Your task to perform on an android device: Go to Android settings Image 0: 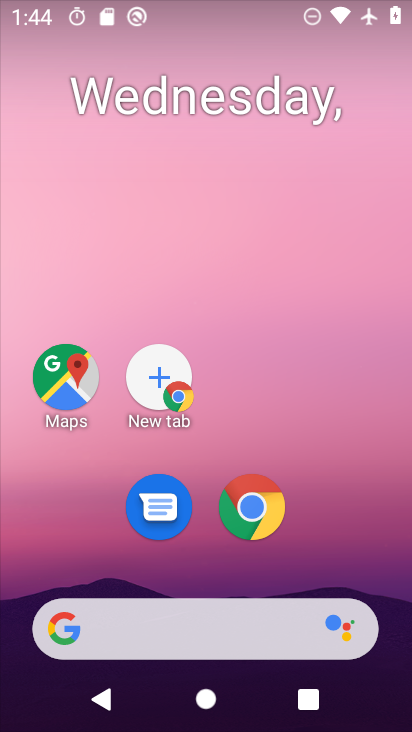
Step 0: drag from (354, 494) to (285, 9)
Your task to perform on an android device: Go to Android settings Image 1: 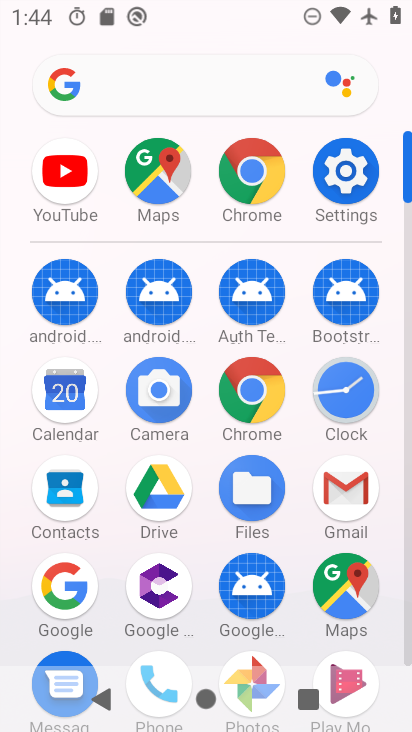
Step 1: click (341, 172)
Your task to perform on an android device: Go to Android settings Image 2: 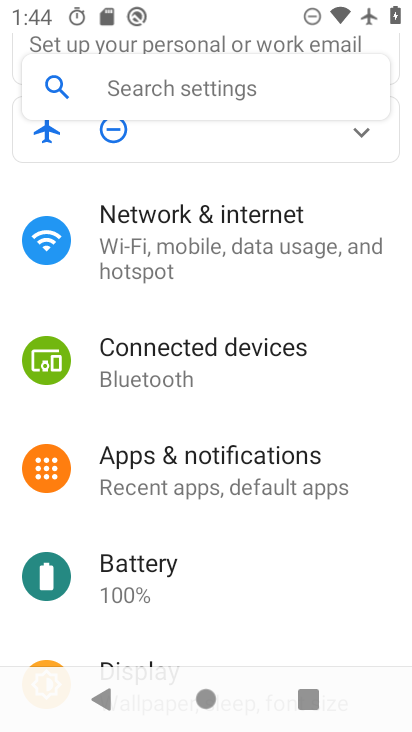
Step 2: drag from (232, 454) to (274, 129)
Your task to perform on an android device: Go to Android settings Image 3: 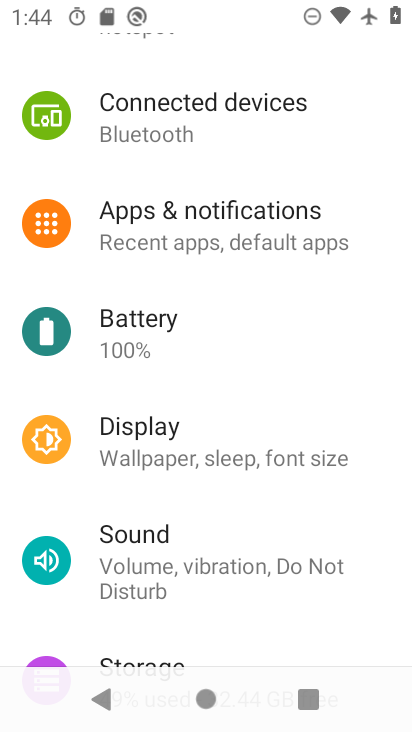
Step 3: drag from (259, 565) to (279, 144)
Your task to perform on an android device: Go to Android settings Image 4: 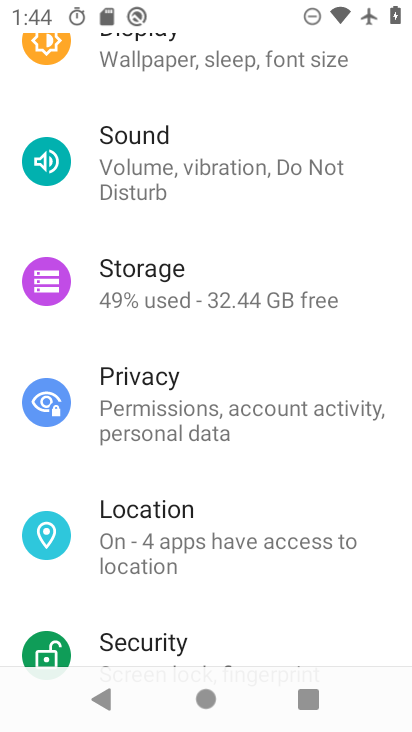
Step 4: drag from (268, 462) to (267, 138)
Your task to perform on an android device: Go to Android settings Image 5: 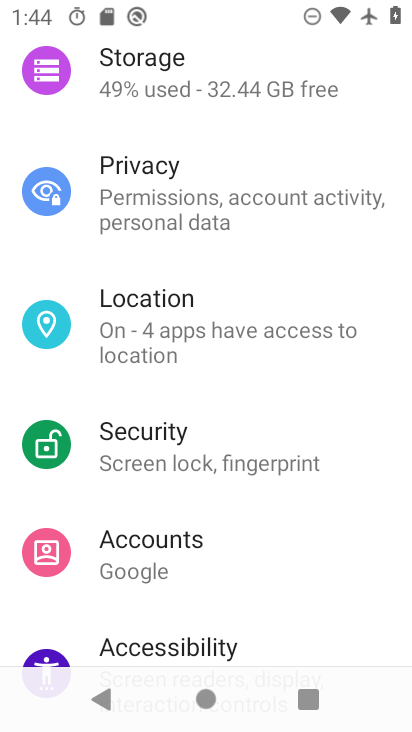
Step 5: drag from (247, 552) to (282, 92)
Your task to perform on an android device: Go to Android settings Image 6: 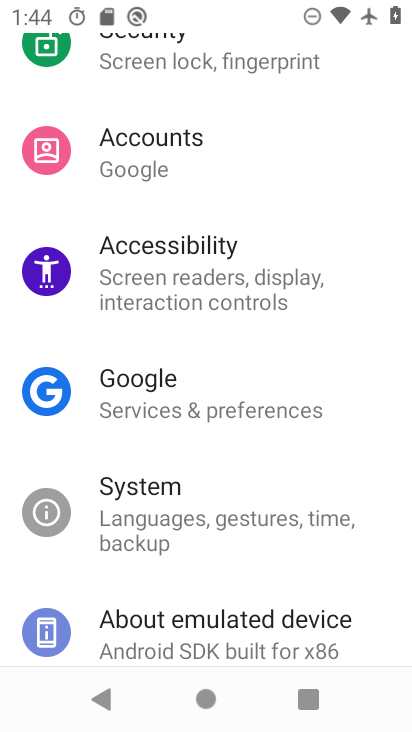
Step 6: drag from (226, 416) to (247, 138)
Your task to perform on an android device: Go to Android settings Image 7: 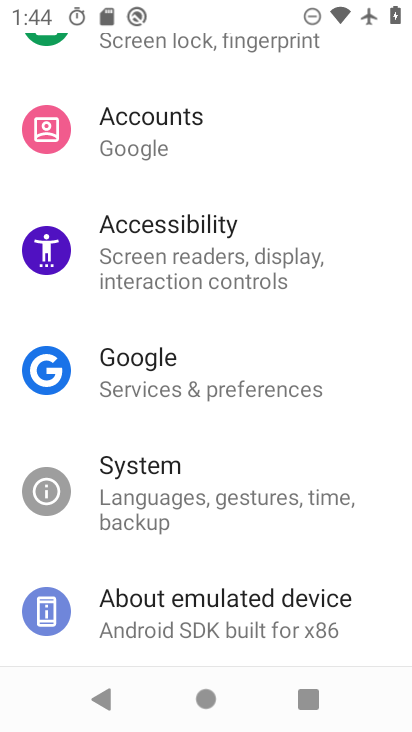
Step 7: drag from (272, 604) to (273, 129)
Your task to perform on an android device: Go to Android settings Image 8: 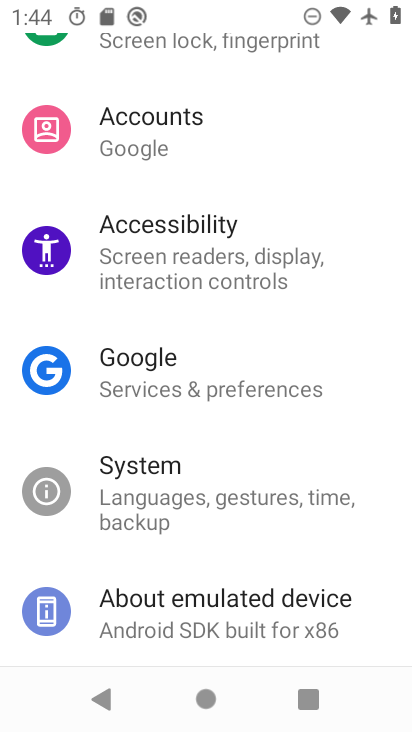
Step 8: drag from (269, 547) to (265, 186)
Your task to perform on an android device: Go to Android settings Image 9: 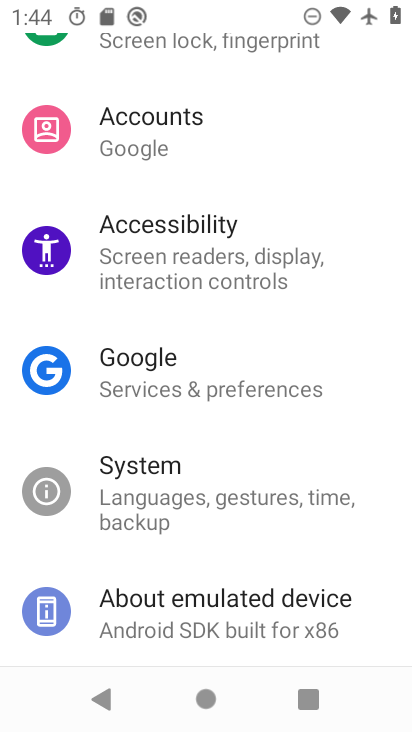
Step 9: drag from (274, 587) to (270, 194)
Your task to perform on an android device: Go to Android settings Image 10: 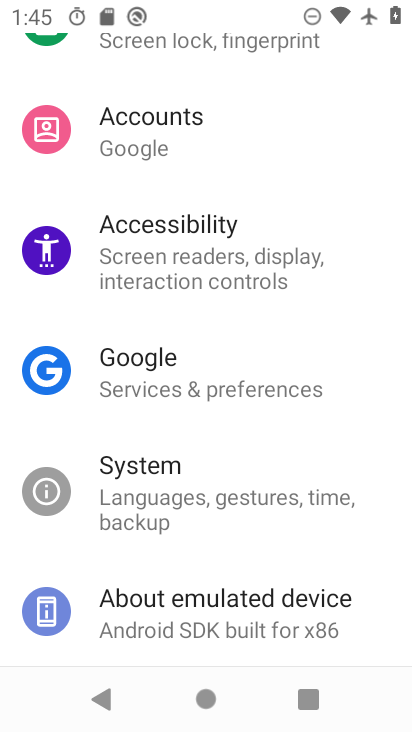
Step 10: click (282, 620)
Your task to perform on an android device: Go to Android settings Image 11: 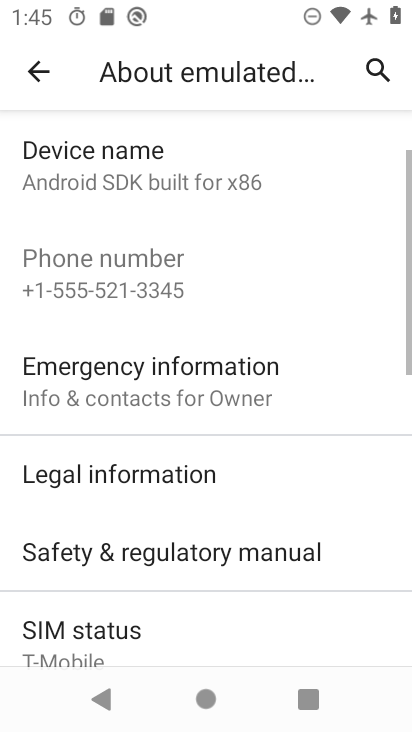
Step 11: task complete